Your task to perform on an android device: turn off airplane mode Image 0: 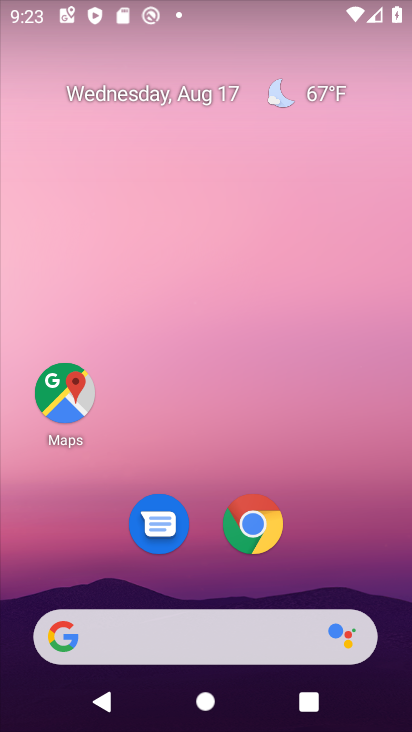
Step 0: drag from (327, 524) to (362, 4)
Your task to perform on an android device: turn off airplane mode Image 1: 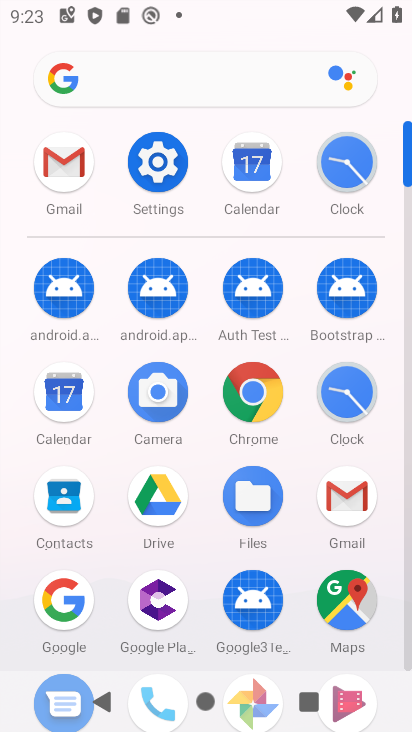
Step 1: click (166, 166)
Your task to perform on an android device: turn off airplane mode Image 2: 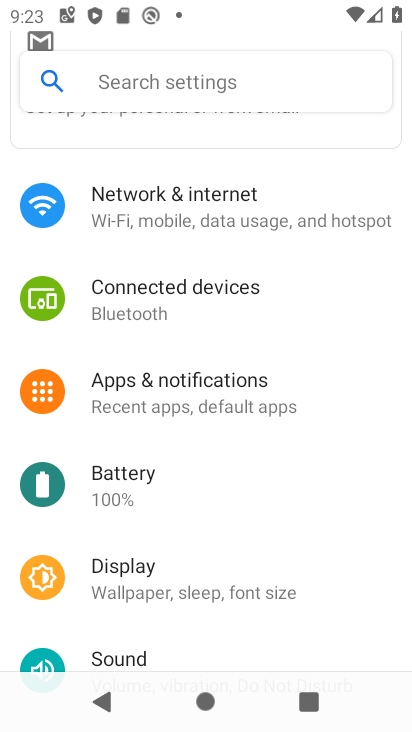
Step 2: click (220, 209)
Your task to perform on an android device: turn off airplane mode Image 3: 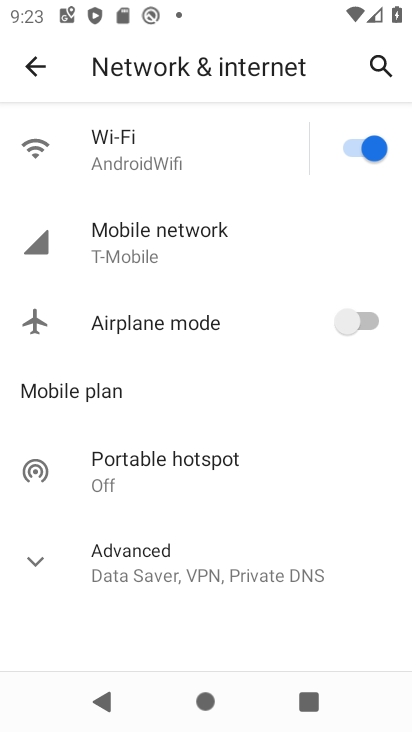
Step 3: task complete